Your task to perform on an android device: turn off improve location accuracy Image 0: 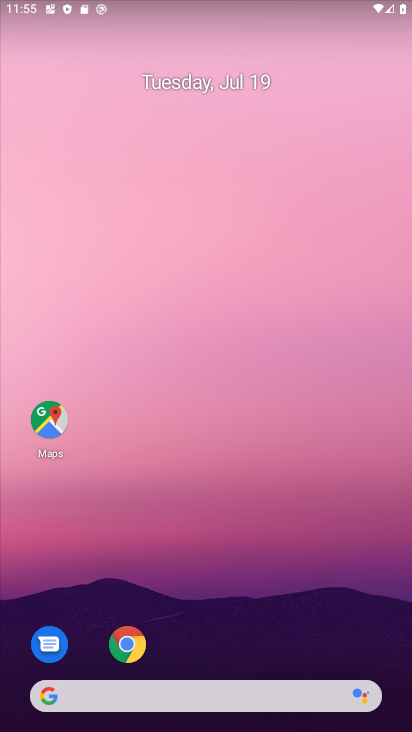
Step 0: press home button
Your task to perform on an android device: turn off improve location accuracy Image 1: 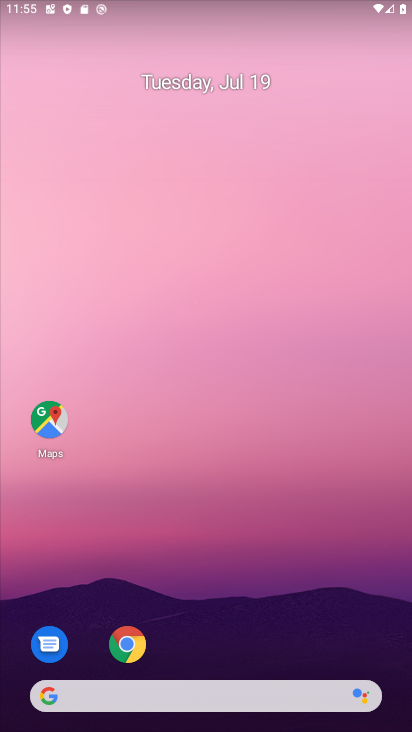
Step 1: drag from (338, 620) to (279, 1)
Your task to perform on an android device: turn off improve location accuracy Image 2: 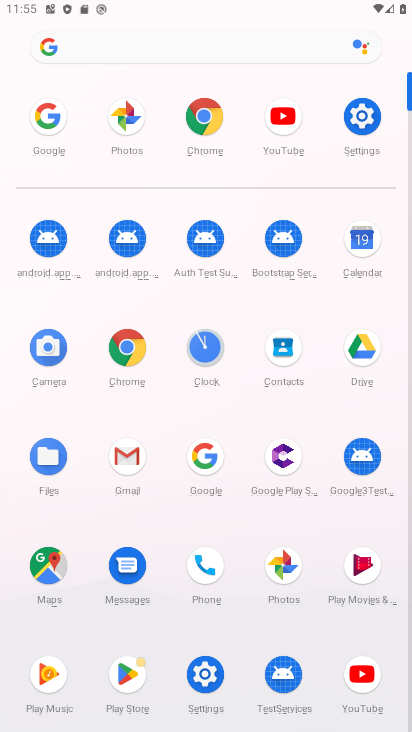
Step 2: click (349, 112)
Your task to perform on an android device: turn off improve location accuracy Image 3: 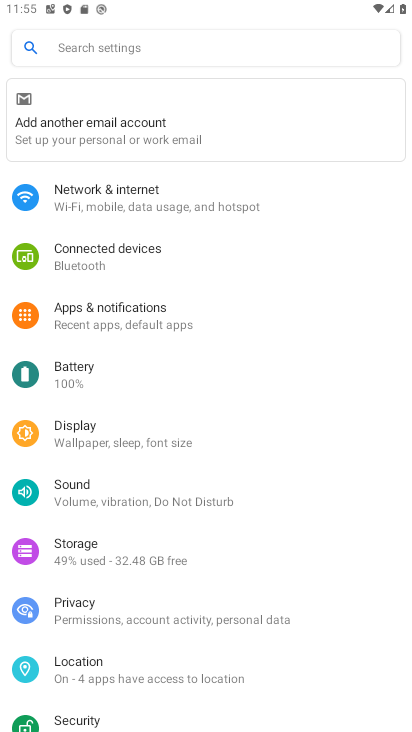
Step 3: click (82, 670)
Your task to perform on an android device: turn off improve location accuracy Image 4: 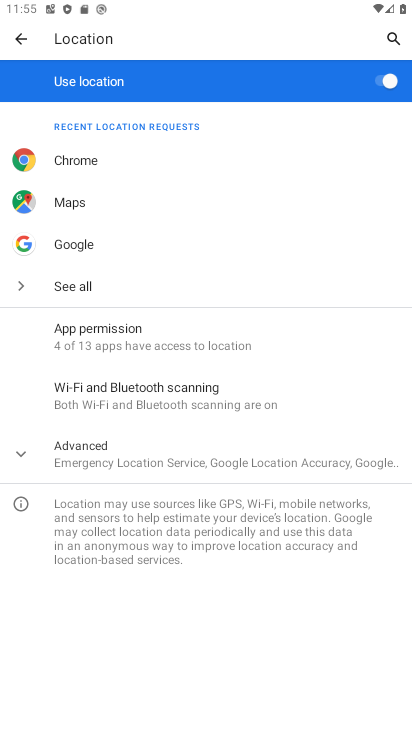
Step 4: click (124, 449)
Your task to perform on an android device: turn off improve location accuracy Image 5: 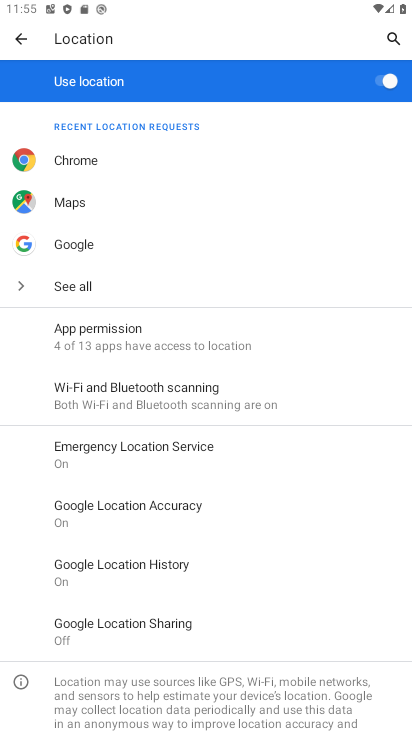
Step 5: click (98, 507)
Your task to perform on an android device: turn off improve location accuracy Image 6: 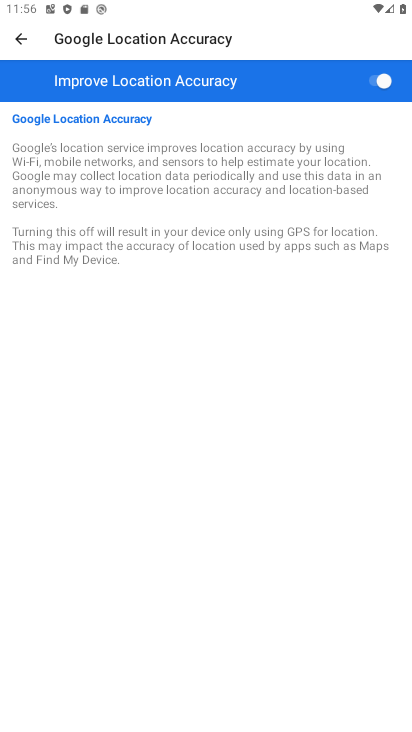
Step 6: click (295, 69)
Your task to perform on an android device: turn off improve location accuracy Image 7: 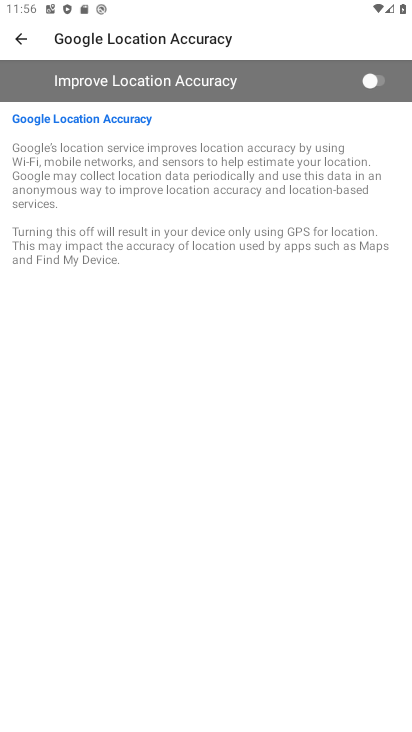
Step 7: task complete